Your task to perform on an android device: Go to Amazon Image 0: 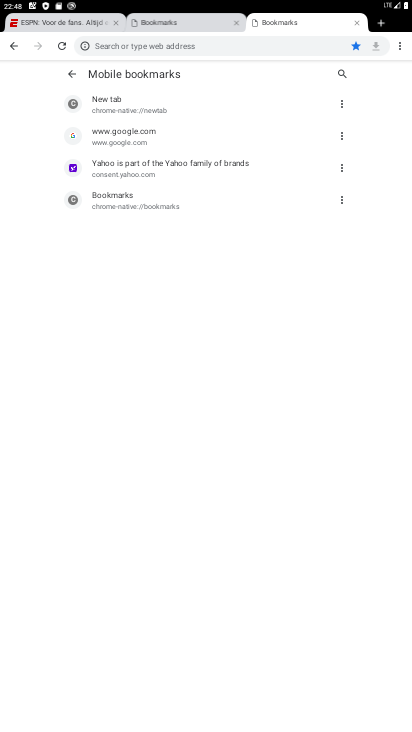
Step 0: click (235, 347)
Your task to perform on an android device: Go to Amazon Image 1: 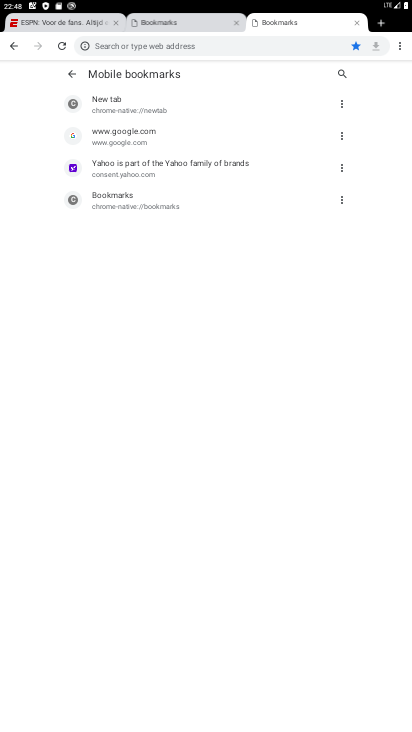
Step 1: click (158, 49)
Your task to perform on an android device: Go to Amazon Image 2: 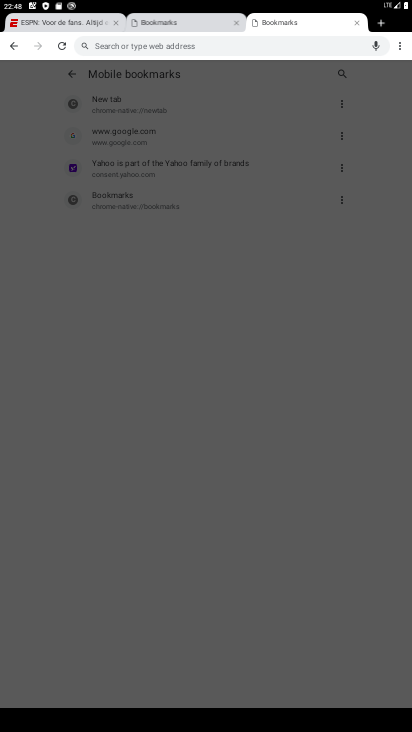
Step 2: type "amazon"
Your task to perform on an android device: Go to Amazon Image 3: 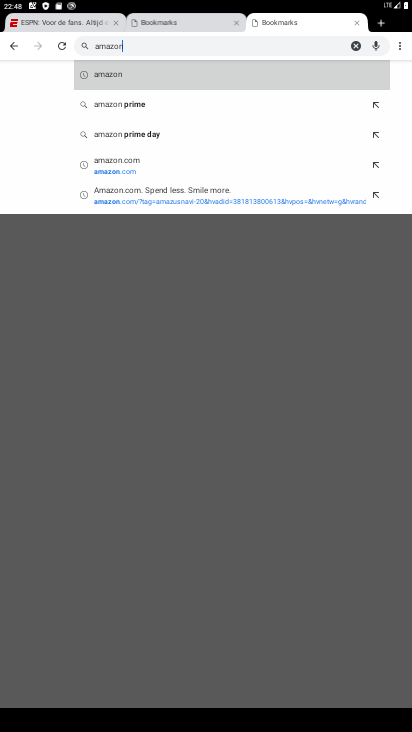
Step 3: click (111, 76)
Your task to perform on an android device: Go to Amazon Image 4: 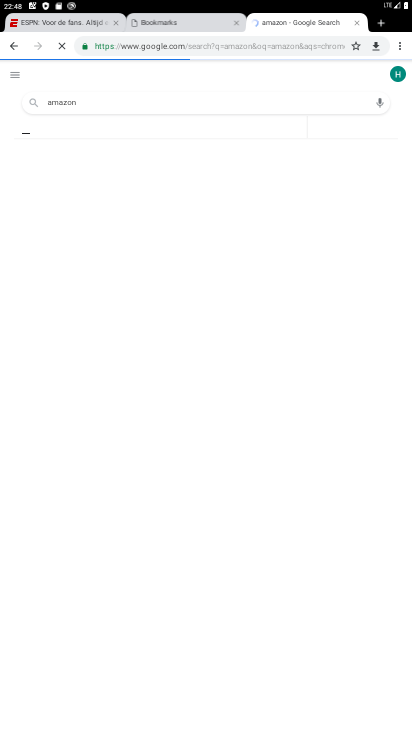
Step 4: task complete